Your task to perform on an android device: Show me the top rated dinnerware on Crate & Barrel Image 0: 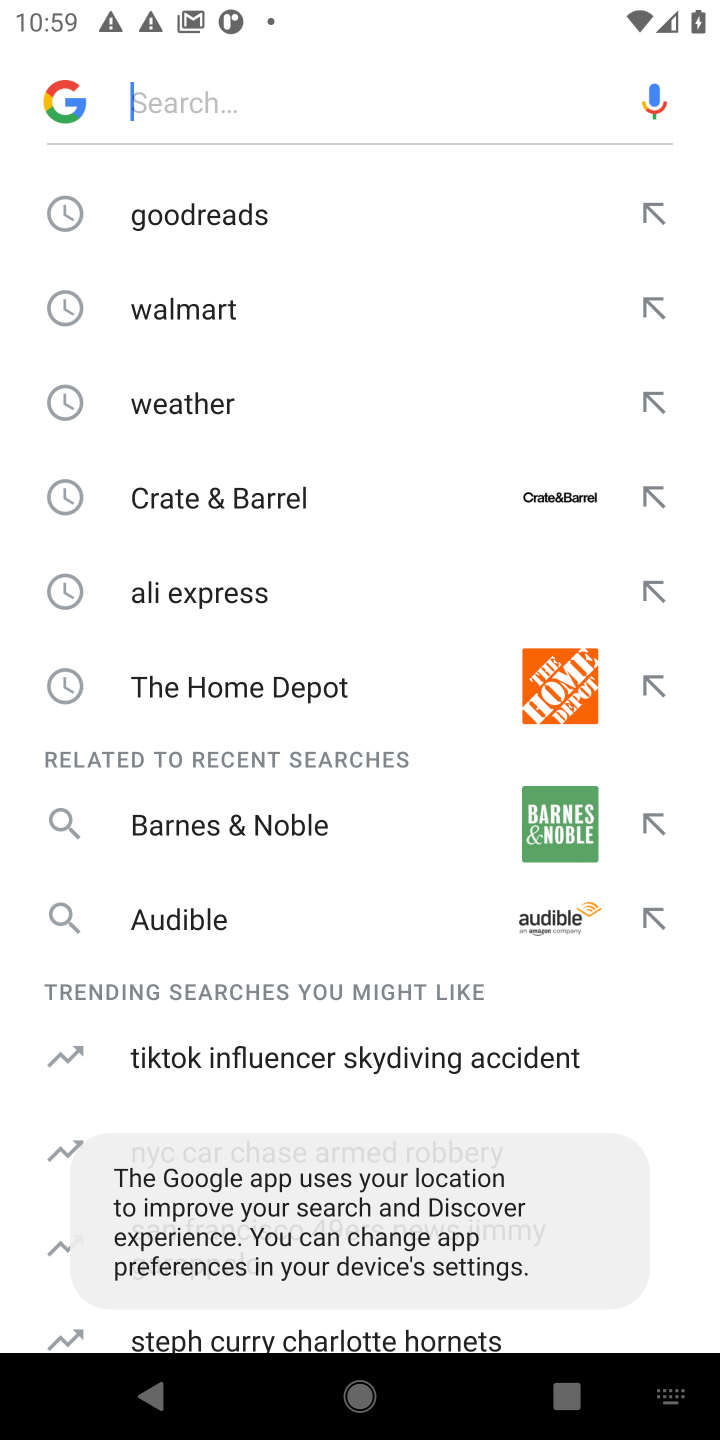
Step 0: press home button
Your task to perform on an android device: Show me the top rated dinnerware on Crate & Barrel Image 1: 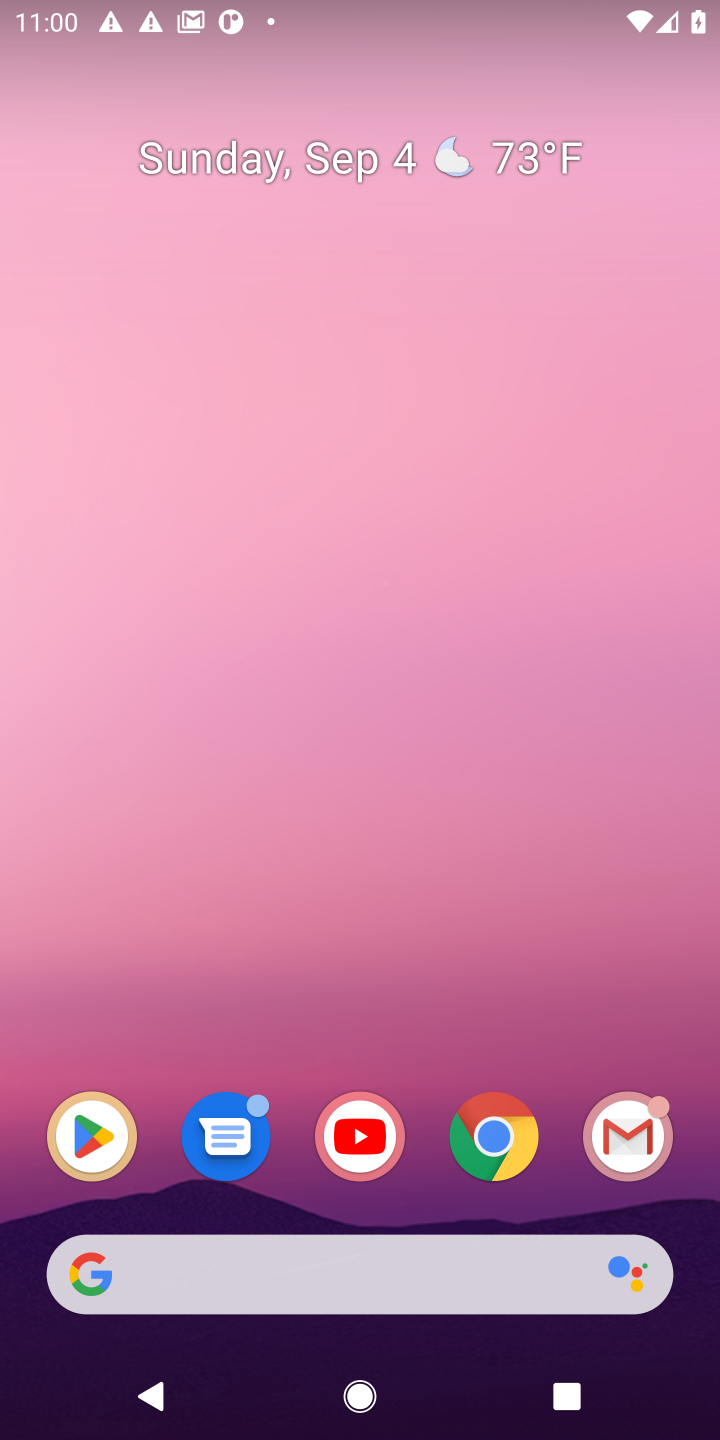
Step 1: click (497, 1138)
Your task to perform on an android device: Show me the top rated dinnerware on Crate & Barrel Image 2: 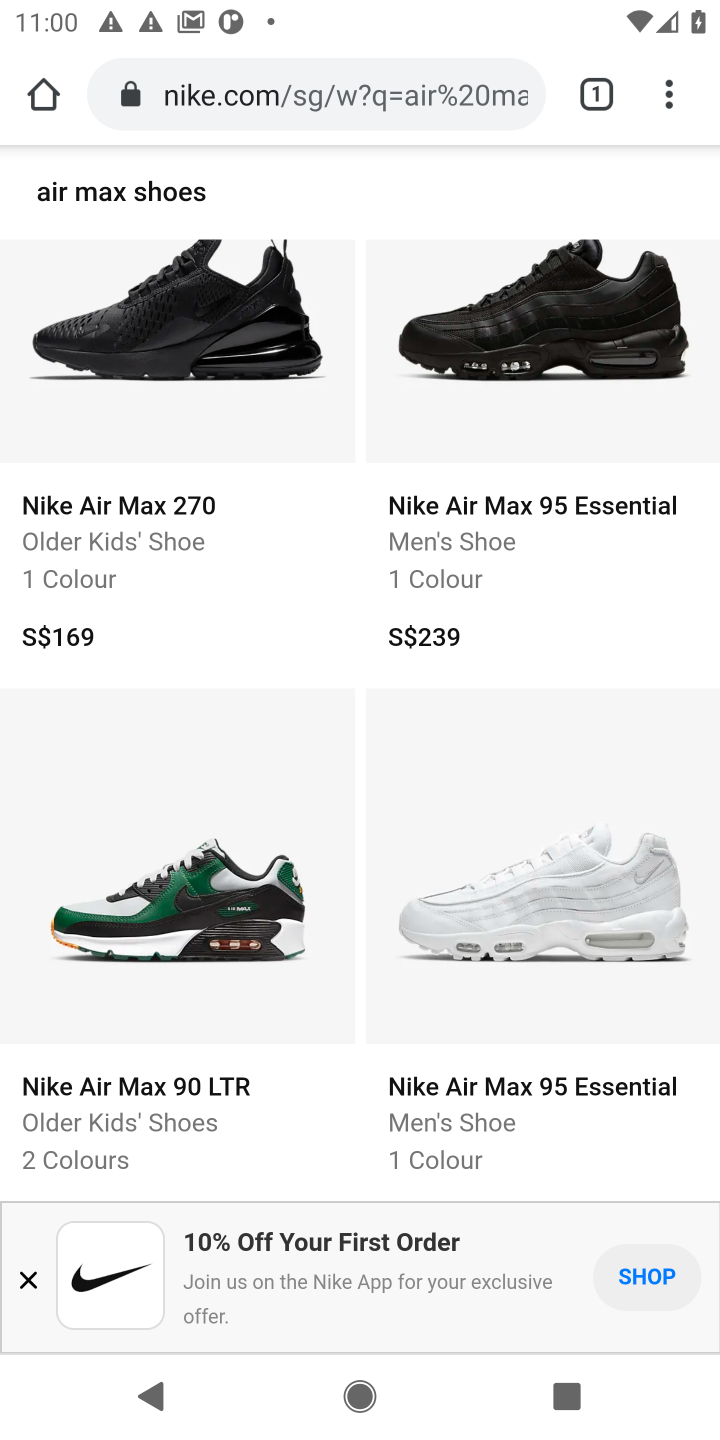
Step 2: click (388, 92)
Your task to perform on an android device: Show me the top rated dinnerware on Crate & Barrel Image 3: 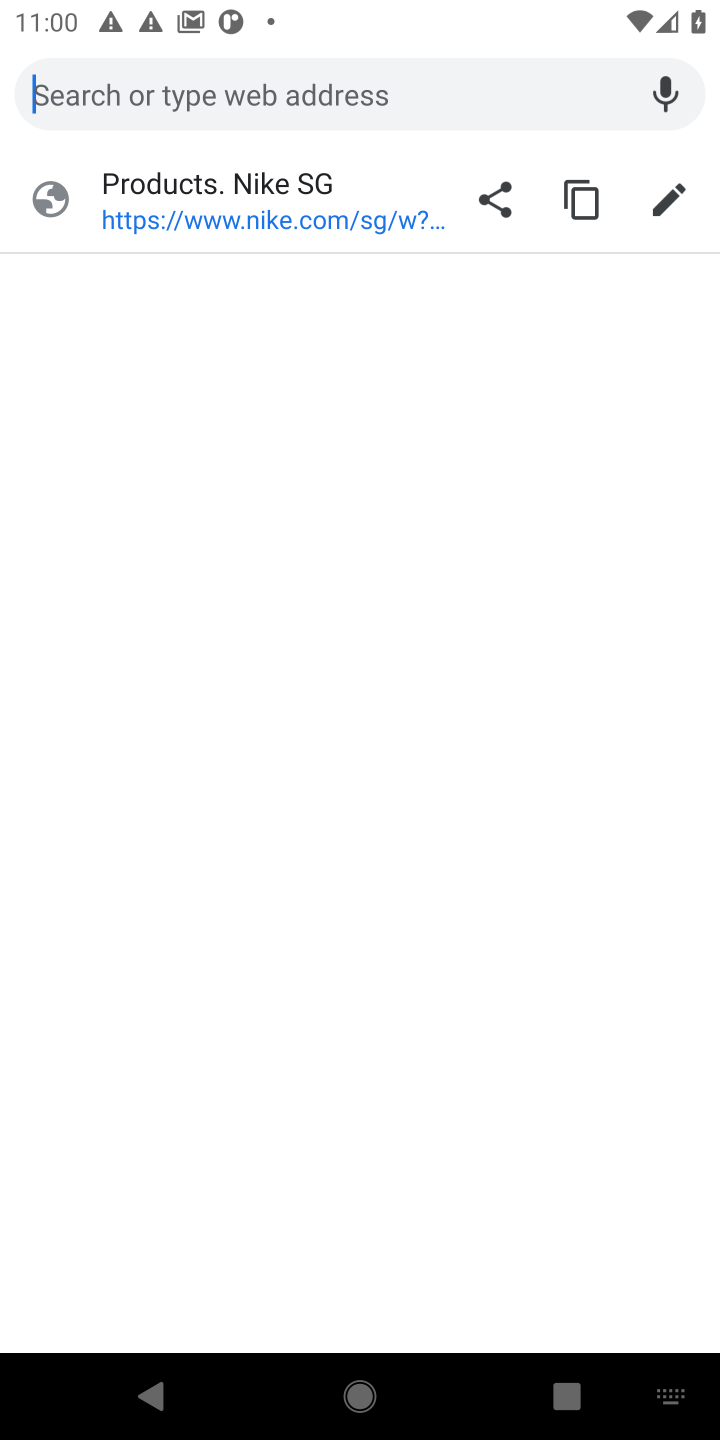
Step 3: type "Crate & Barrel"
Your task to perform on an android device: Show me the top rated dinnerware on Crate & Barrel Image 4: 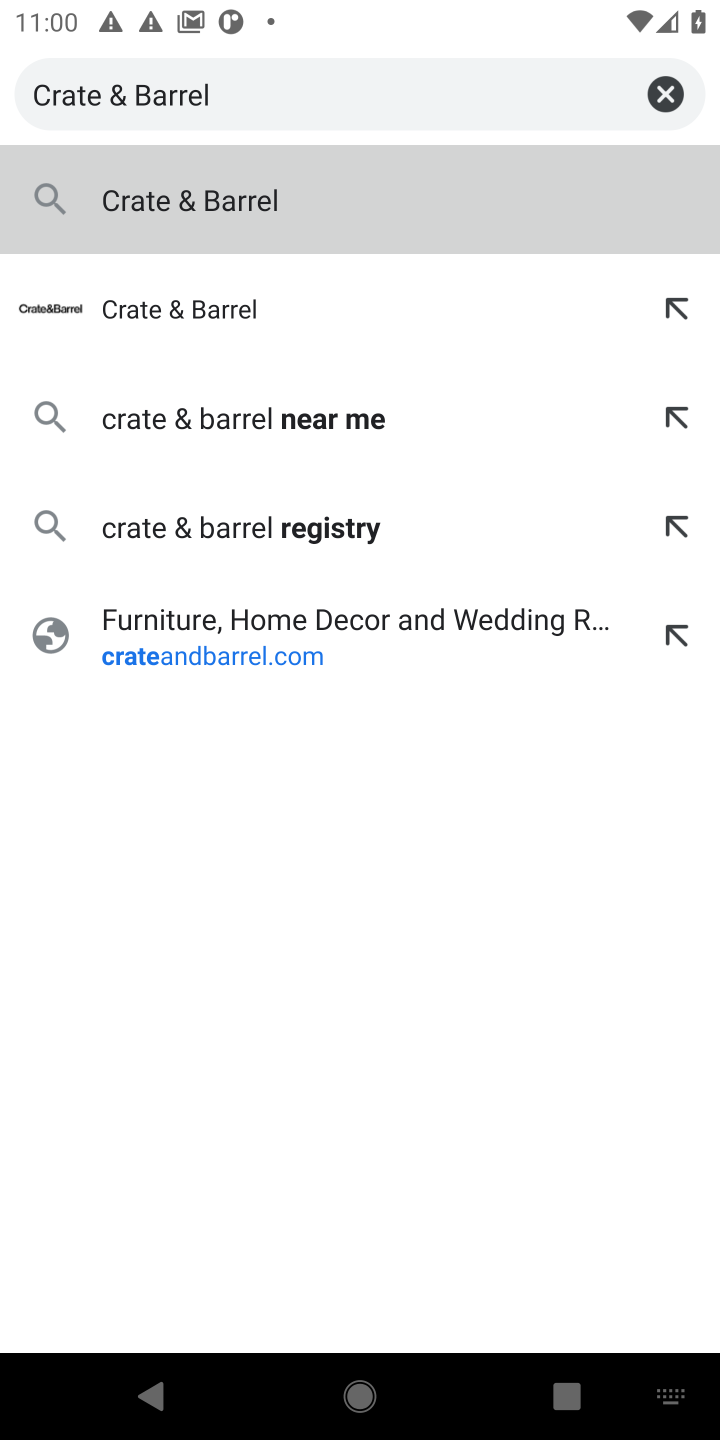
Step 4: press enter
Your task to perform on an android device: Show me the top rated dinnerware on Crate & Barrel Image 5: 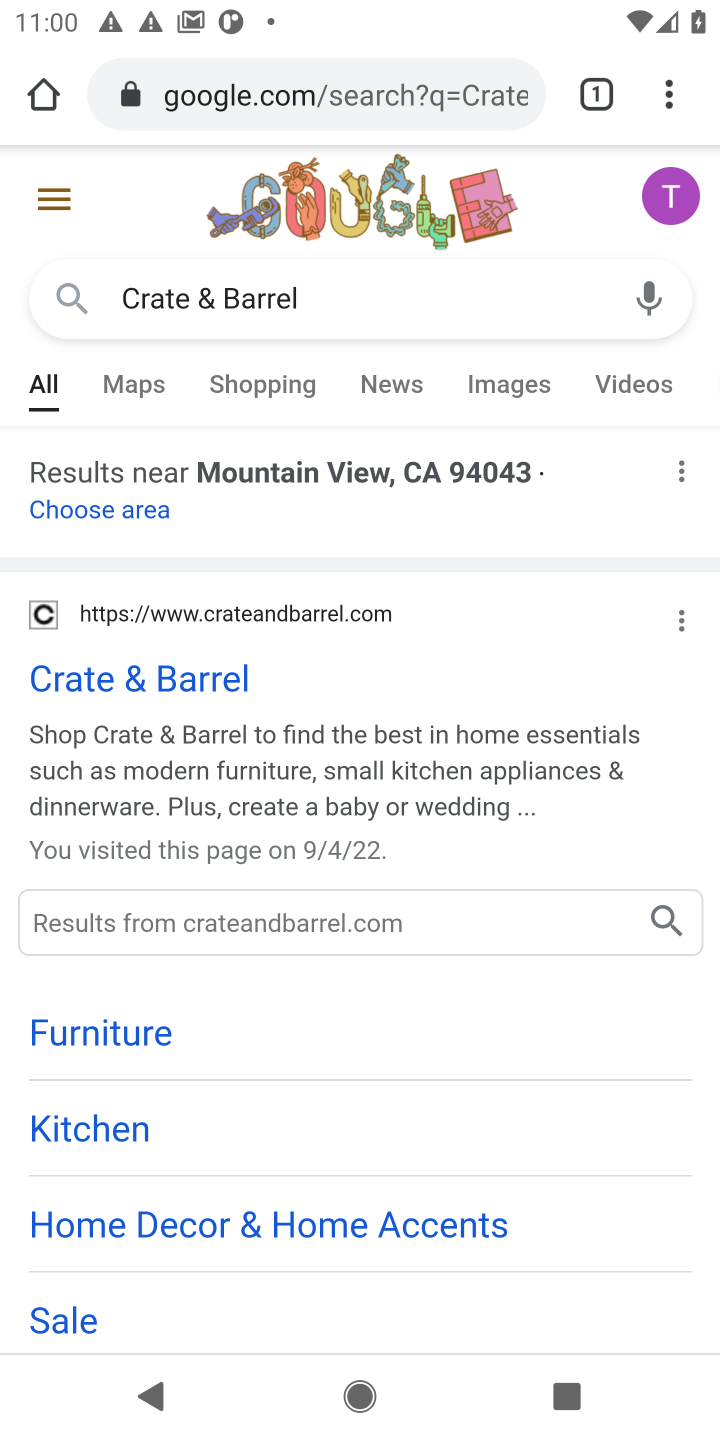
Step 5: click (212, 675)
Your task to perform on an android device: Show me the top rated dinnerware on Crate & Barrel Image 6: 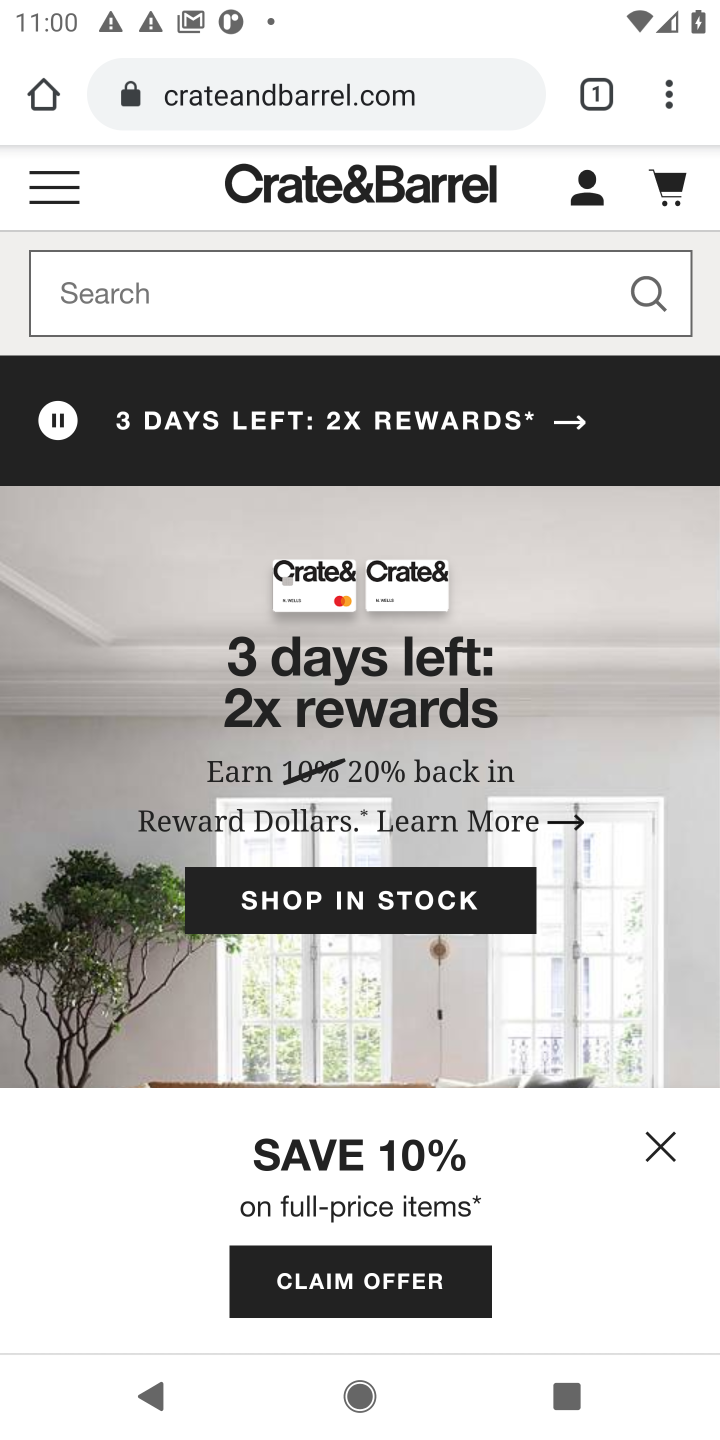
Step 6: click (189, 295)
Your task to perform on an android device: Show me the top rated dinnerware on Crate & Barrel Image 7: 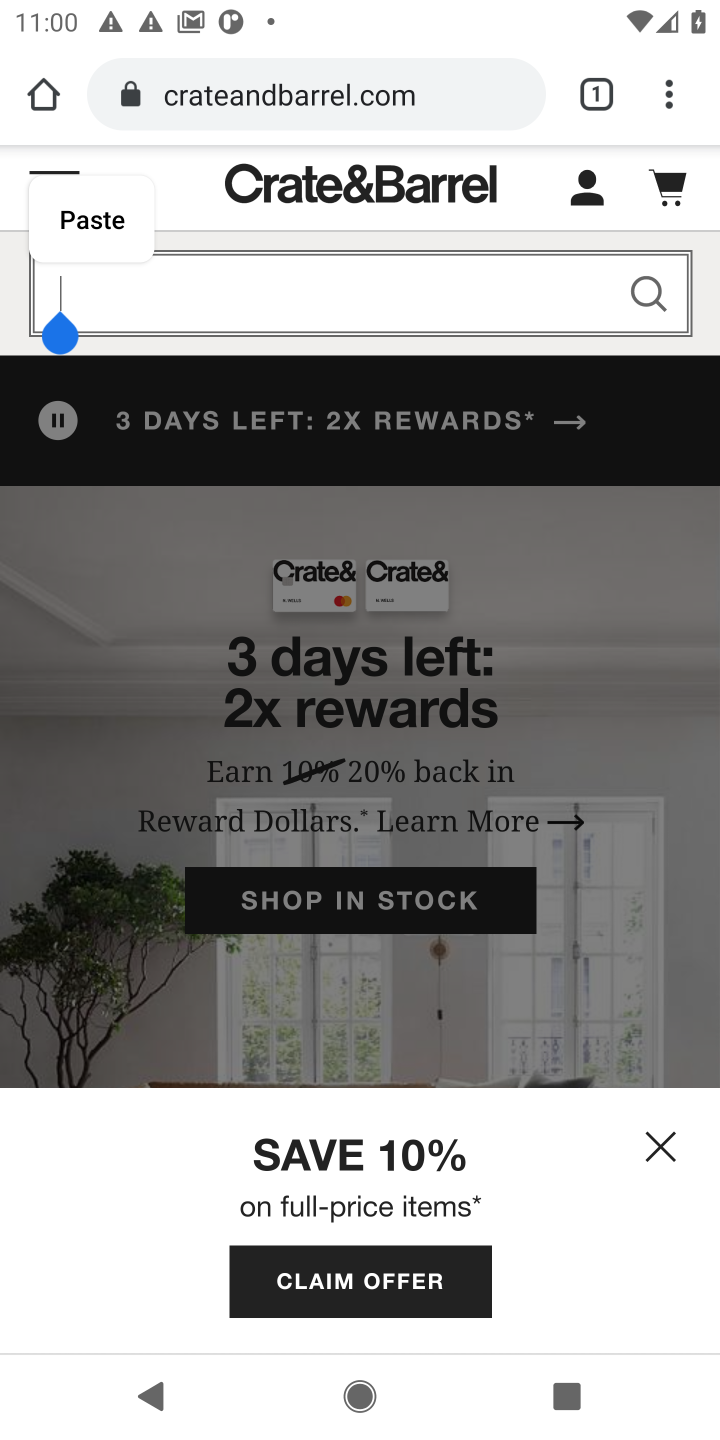
Step 7: type "dinnerware"
Your task to perform on an android device: Show me the top rated dinnerware on Crate & Barrel Image 8: 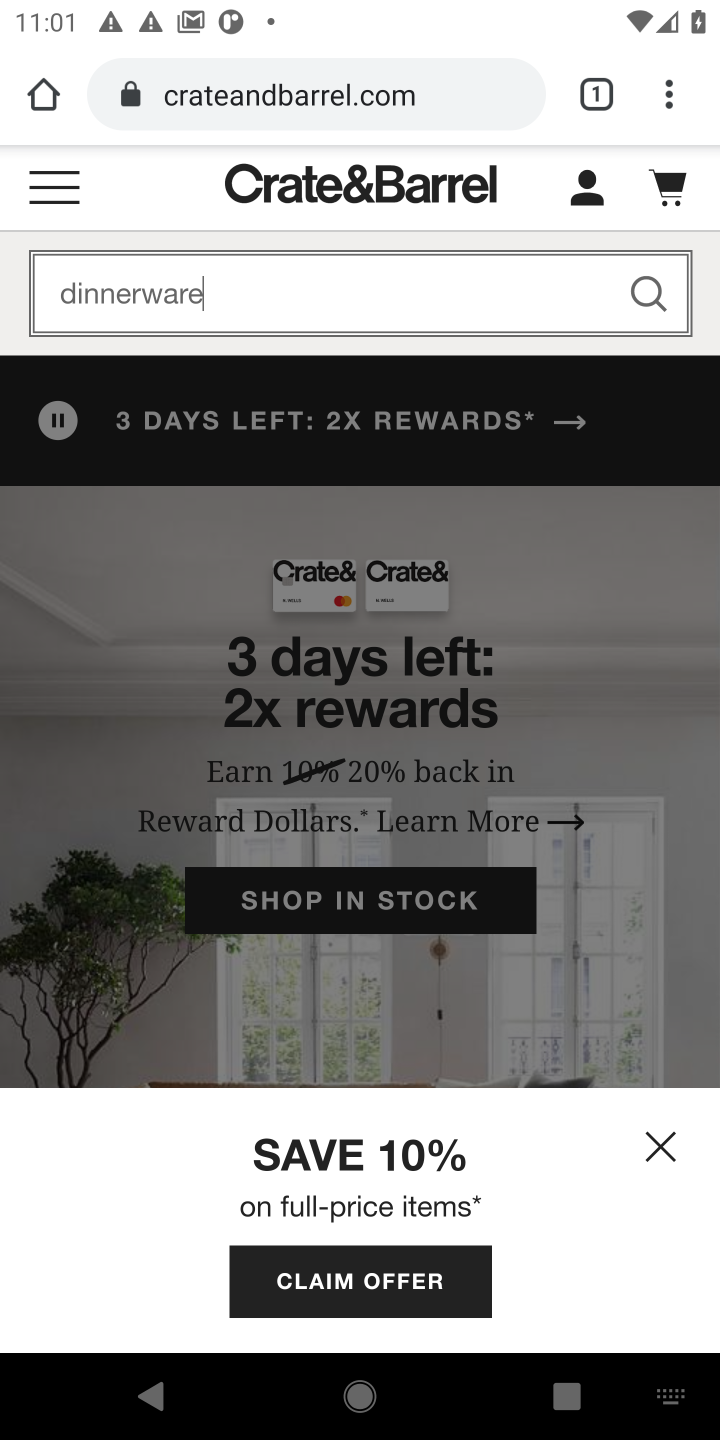
Step 8: press enter
Your task to perform on an android device: Show me the top rated dinnerware on Crate & Barrel Image 9: 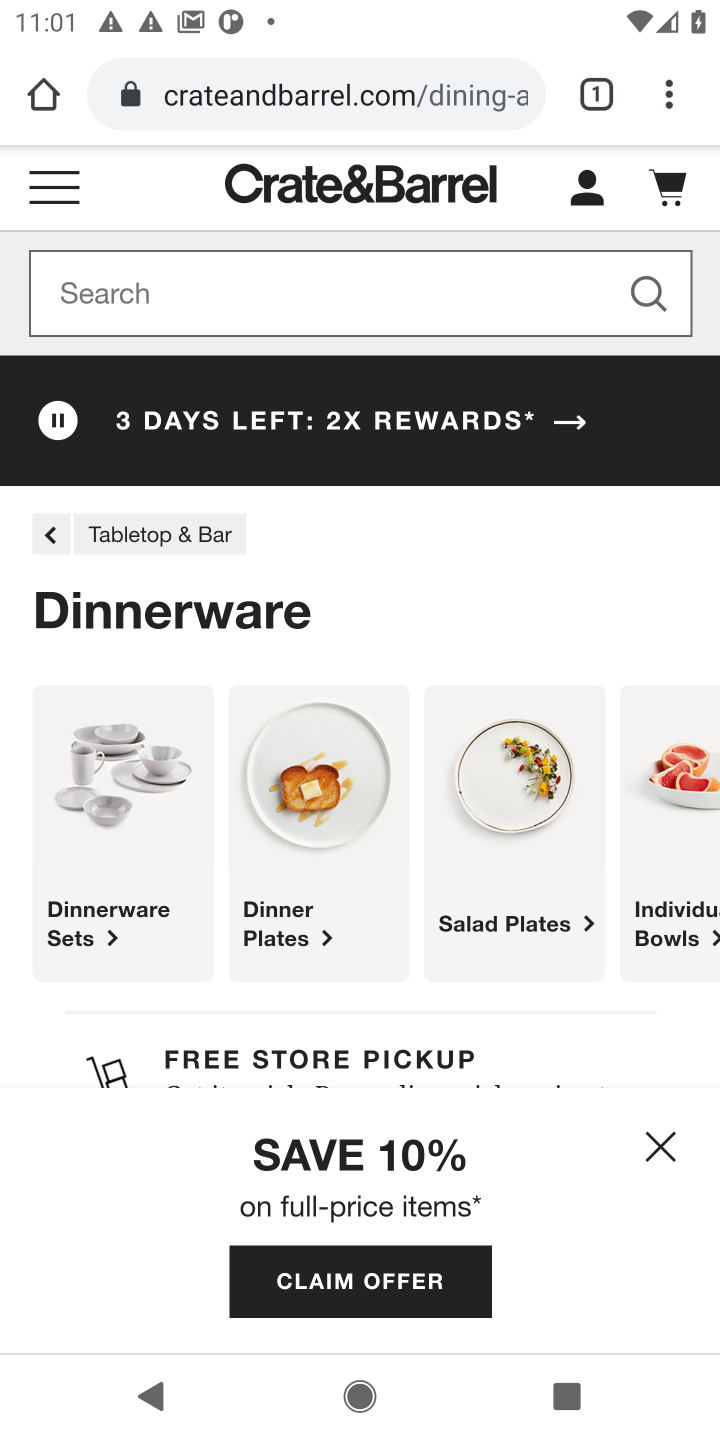
Step 9: drag from (336, 1229) to (686, 211)
Your task to perform on an android device: Show me the top rated dinnerware on Crate & Barrel Image 10: 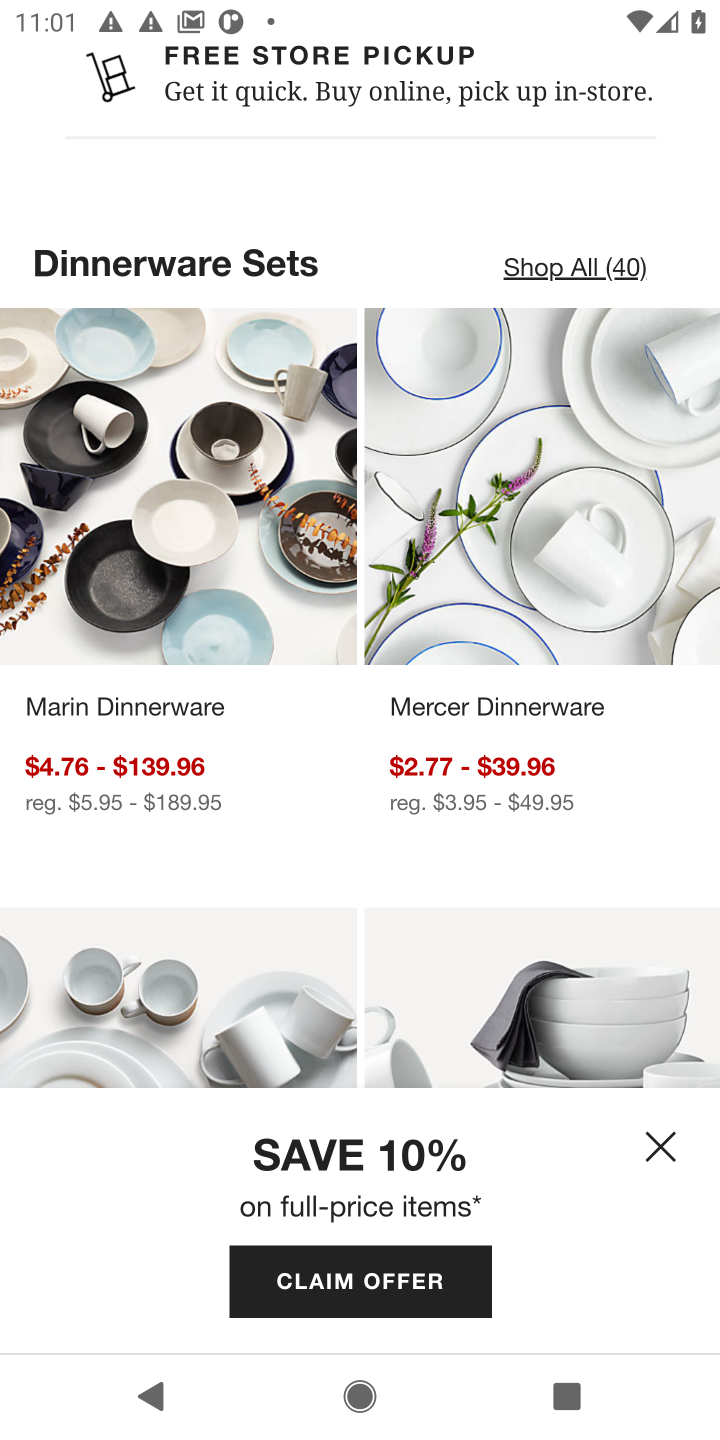
Step 10: click (551, 574)
Your task to perform on an android device: Show me the top rated dinnerware on Crate & Barrel Image 11: 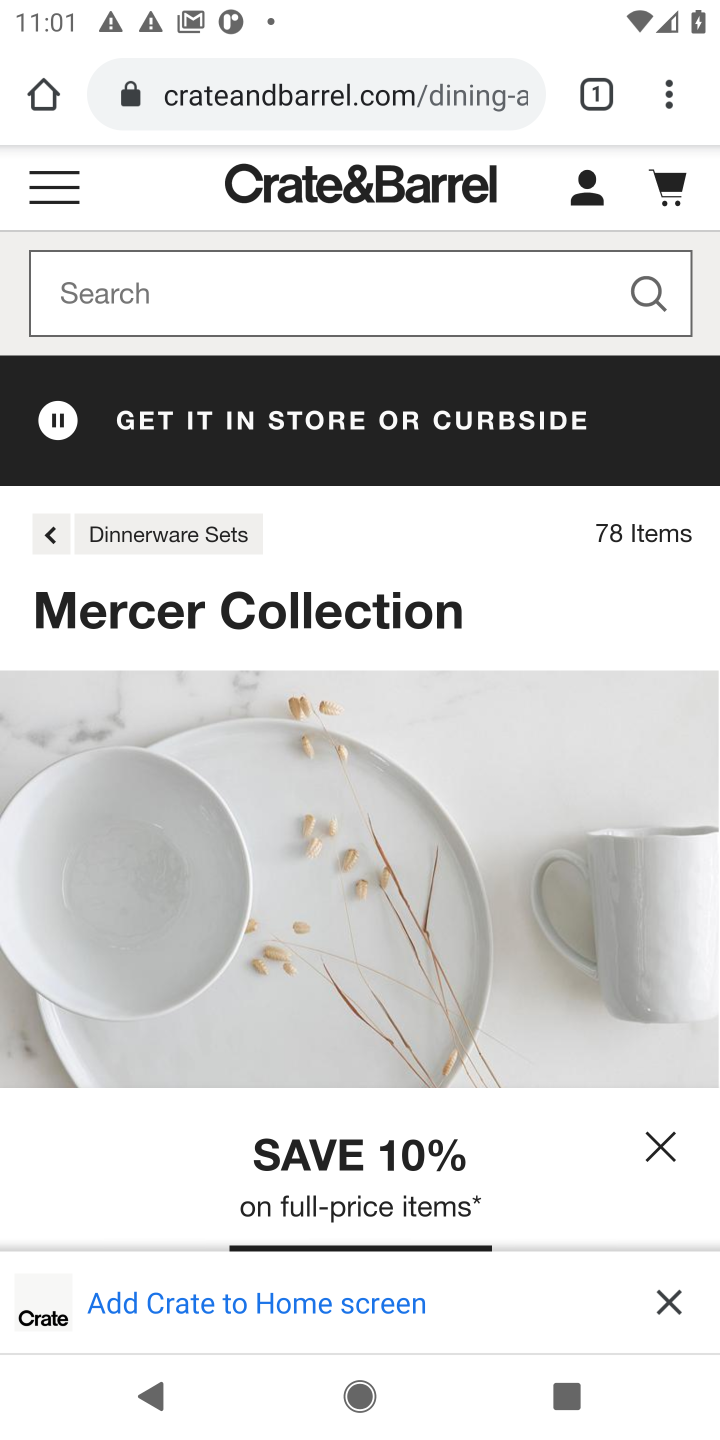
Step 11: drag from (430, 599) to (368, 1103)
Your task to perform on an android device: Show me the top rated dinnerware on Crate & Barrel Image 12: 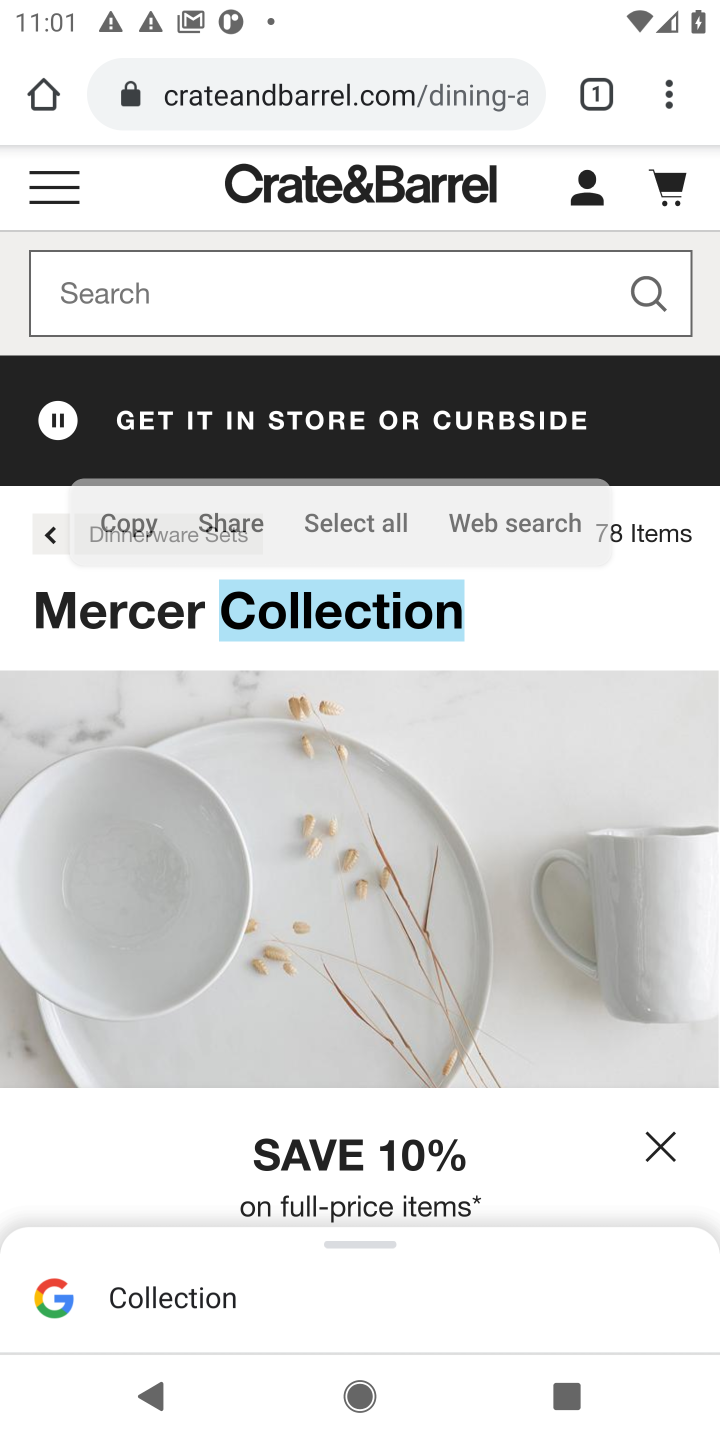
Step 12: click (661, 1147)
Your task to perform on an android device: Show me the top rated dinnerware on Crate & Barrel Image 13: 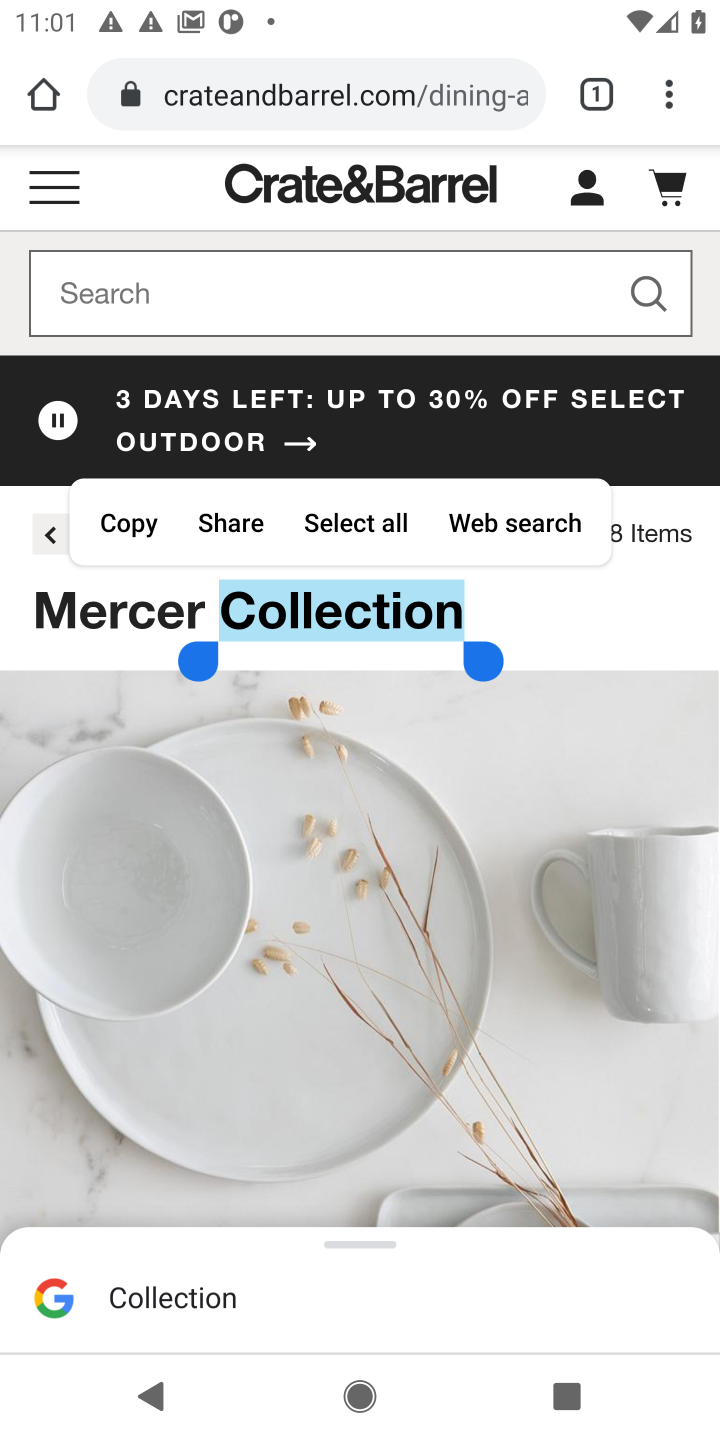
Step 13: task complete